Your task to perform on an android device: open app "PlayWell" (install if not already installed) Image 0: 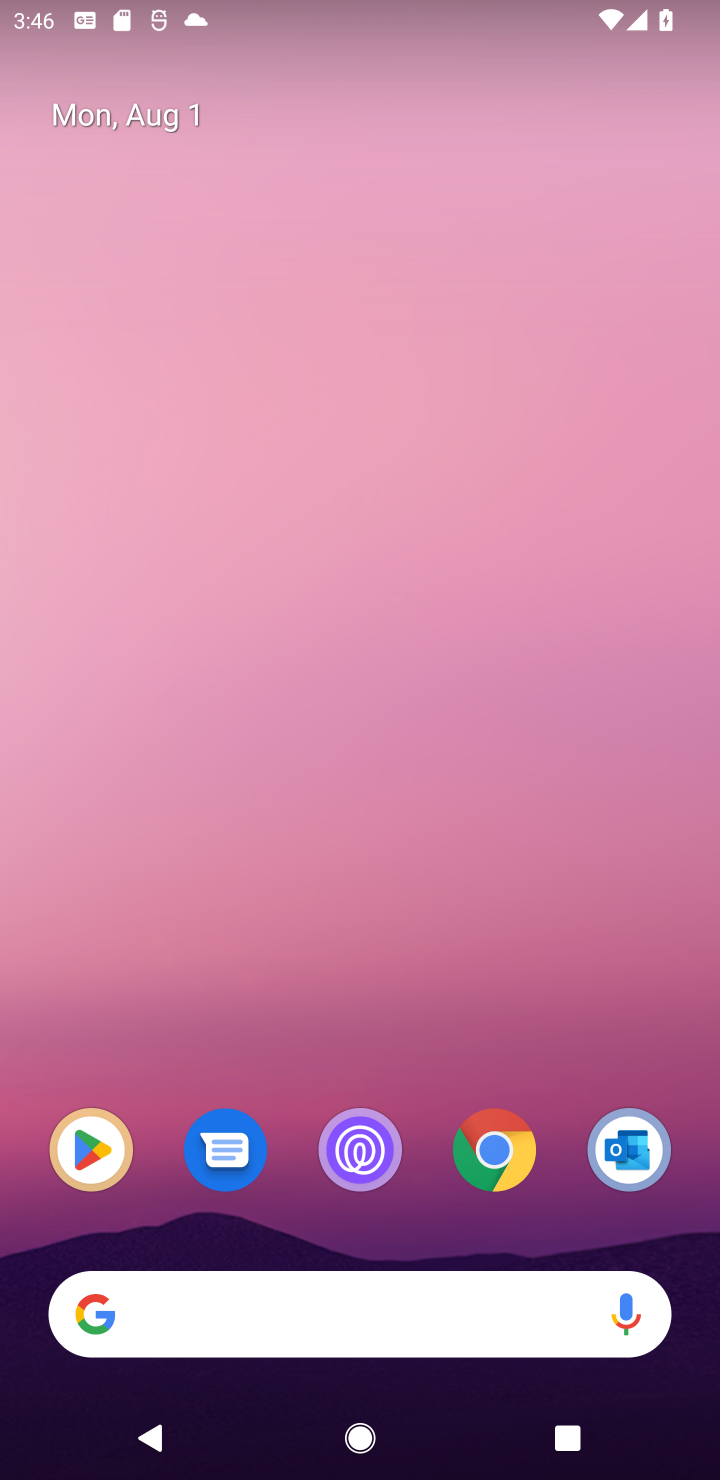
Step 0: click (100, 1168)
Your task to perform on an android device: open app "PlayWell" (install if not already installed) Image 1: 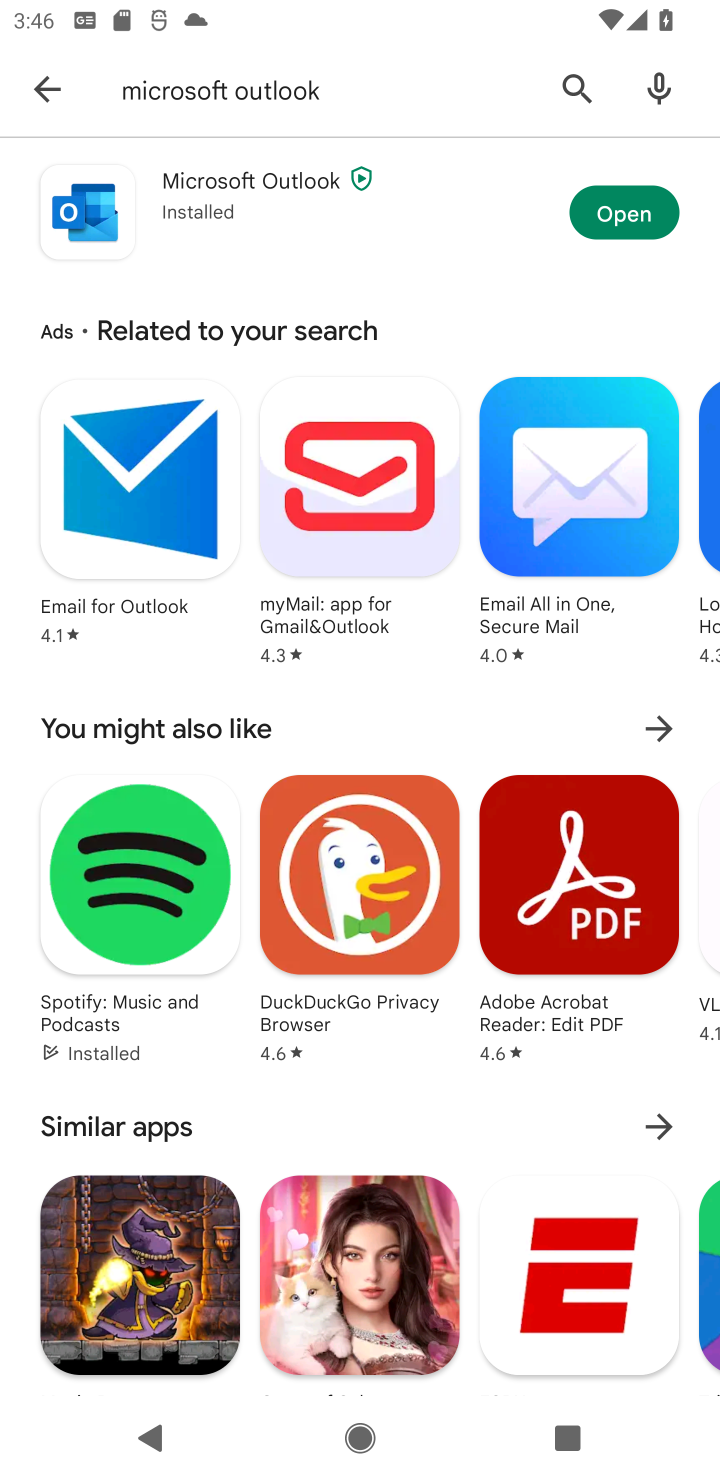
Step 1: click (593, 100)
Your task to perform on an android device: open app "PlayWell" (install if not already installed) Image 2: 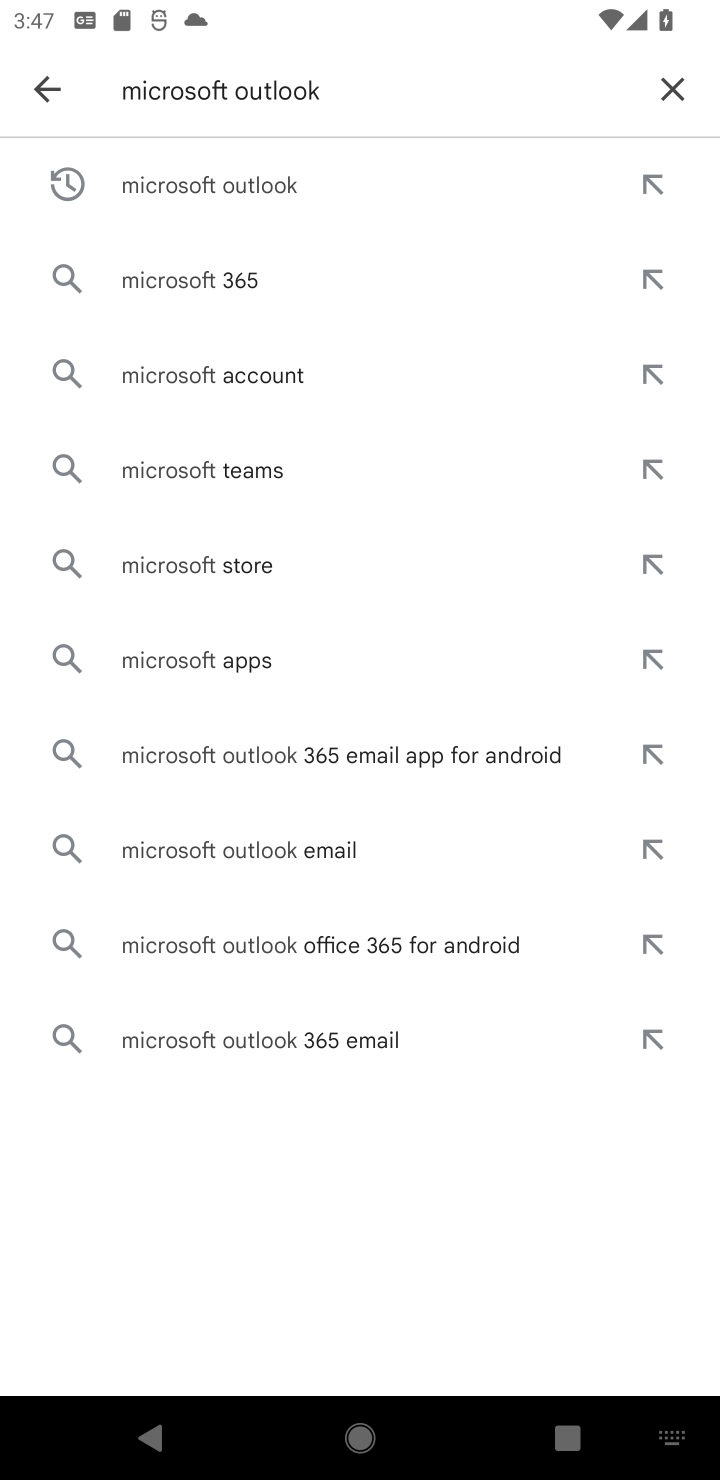
Step 2: click (688, 100)
Your task to perform on an android device: open app "PlayWell" (install if not already installed) Image 3: 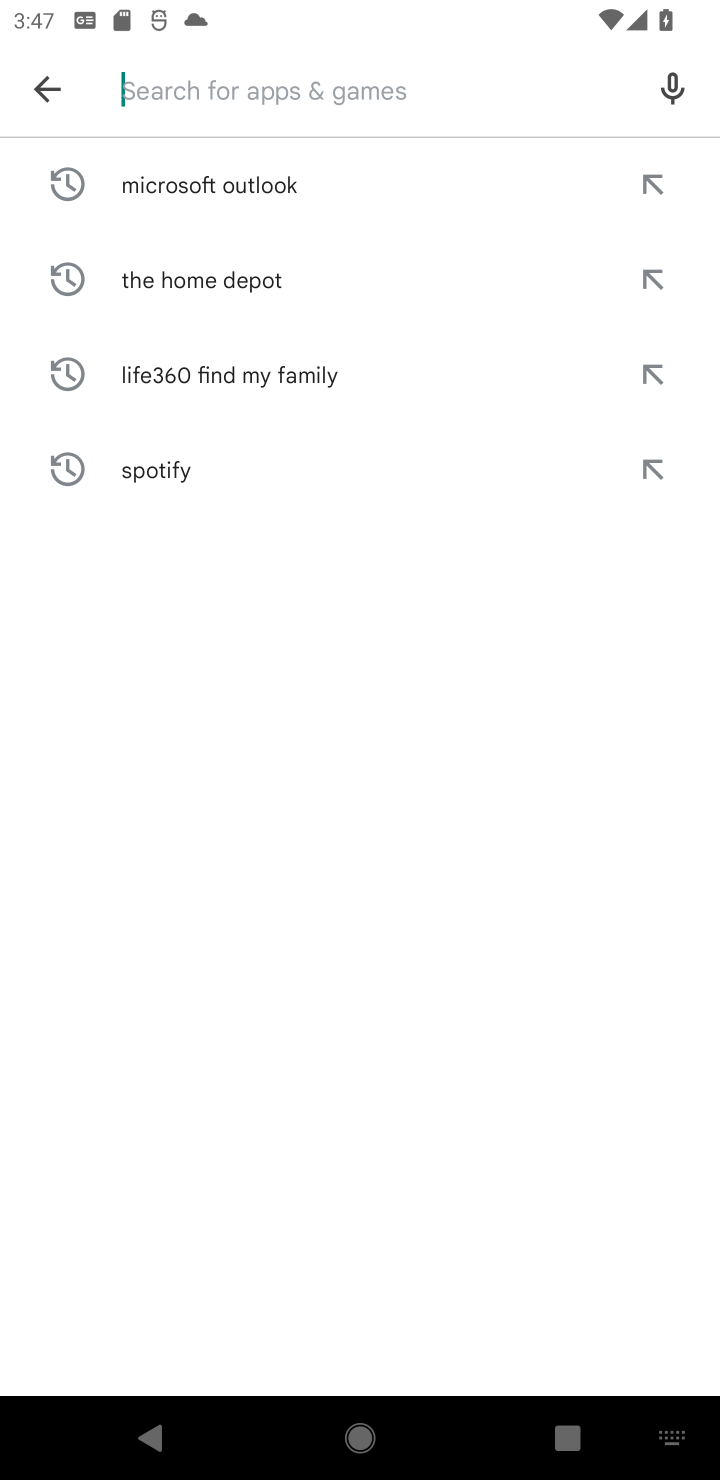
Step 3: type "playwell"
Your task to perform on an android device: open app "PlayWell" (install if not already installed) Image 4: 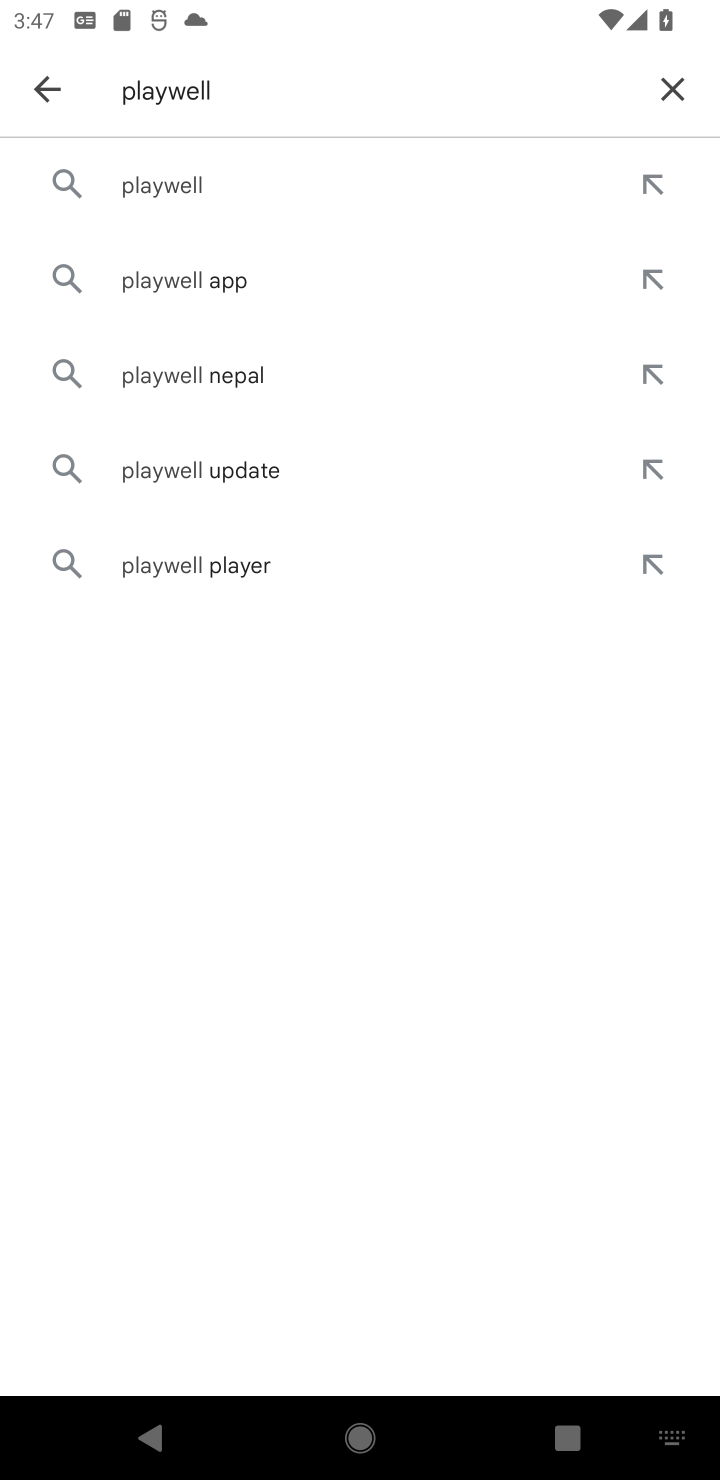
Step 4: click (146, 186)
Your task to perform on an android device: open app "PlayWell" (install if not already installed) Image 5: 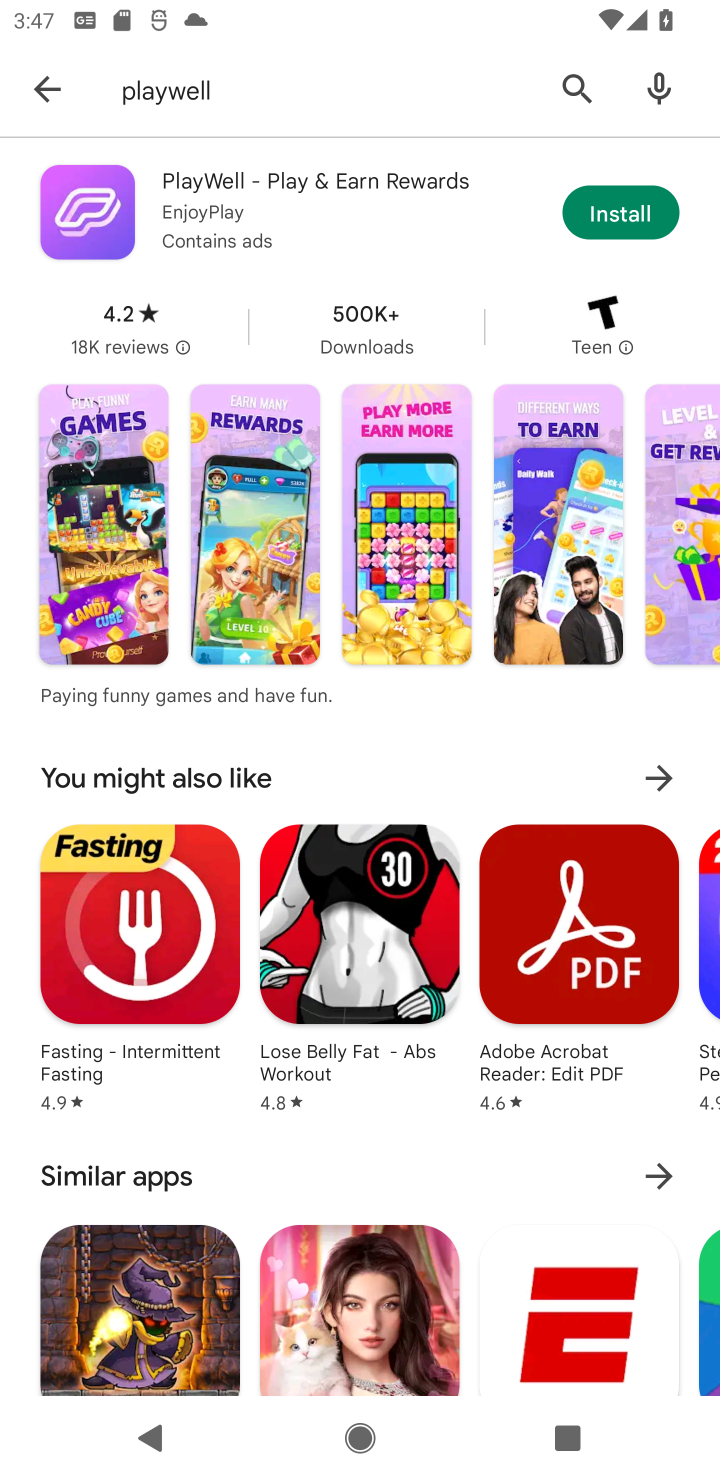
Step 5: click (642, 224)
Your task to perform on an android device: open app "PlayWell" (install if not already installed) Image 6: 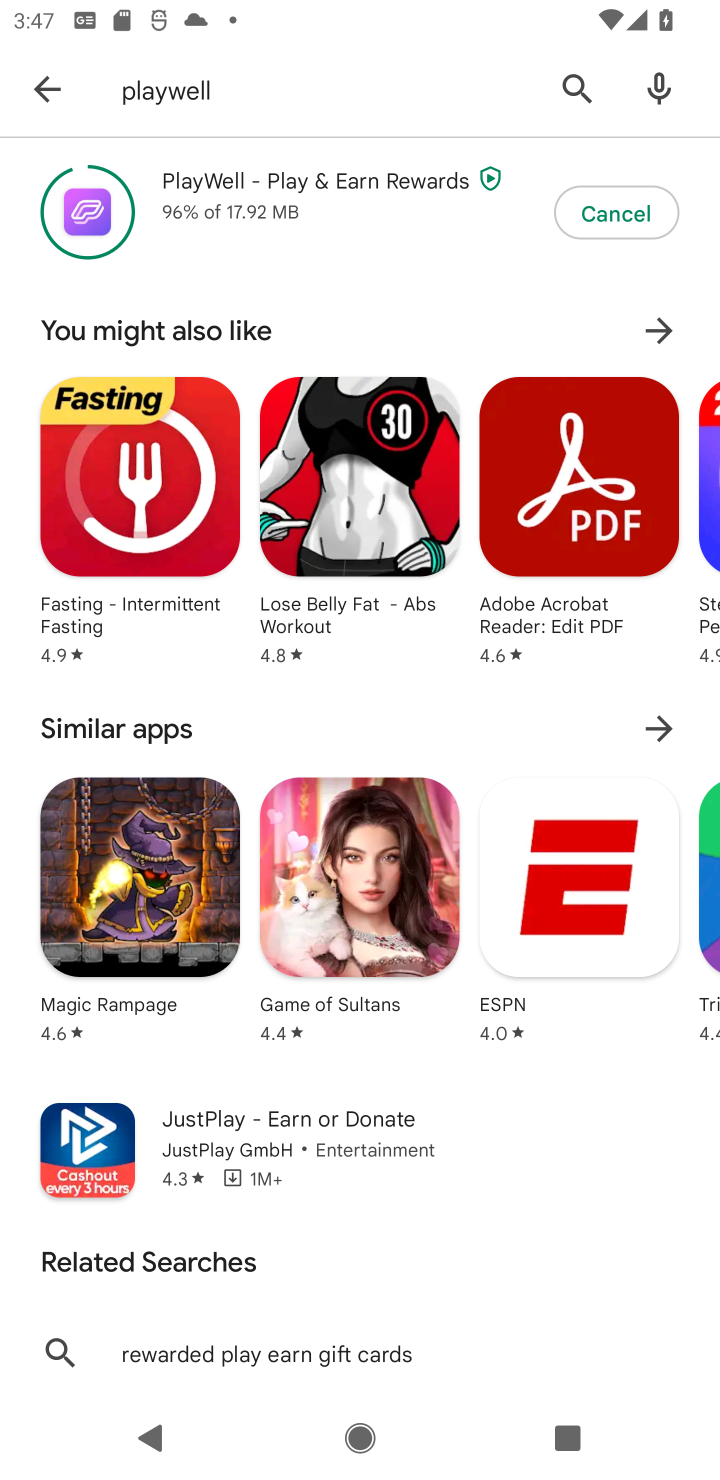
Step 6: task complete